Your task to perform on an android device: open sync settings in chrome Image 0: 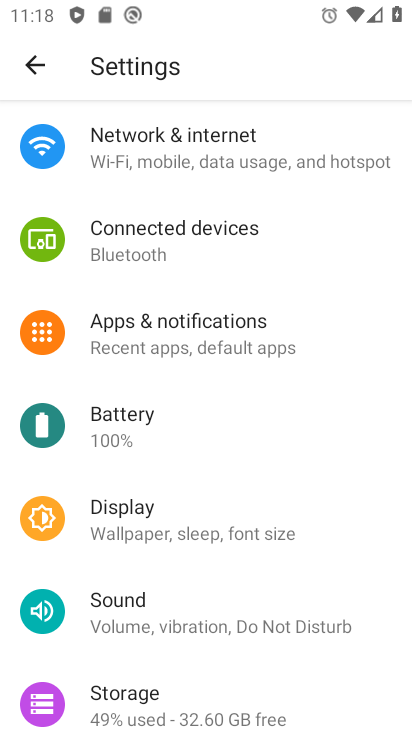
Step 0: press home button
Your task to perform on an android device: open sync settings in chrome Image 1: 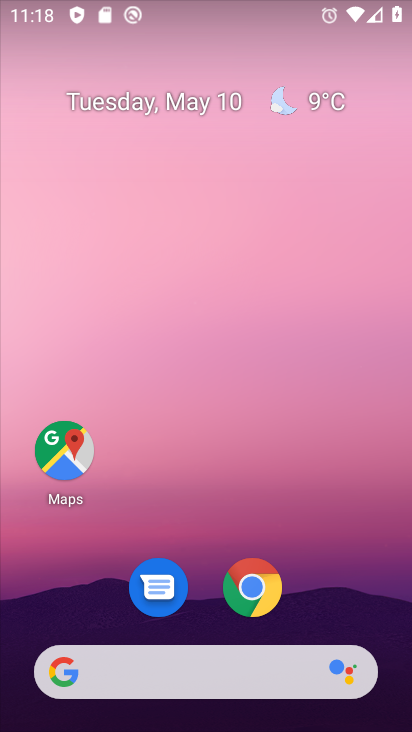
Step 1: click (254, 584)
Your task to perform on an android device: open sync settings in chrome Image 2: 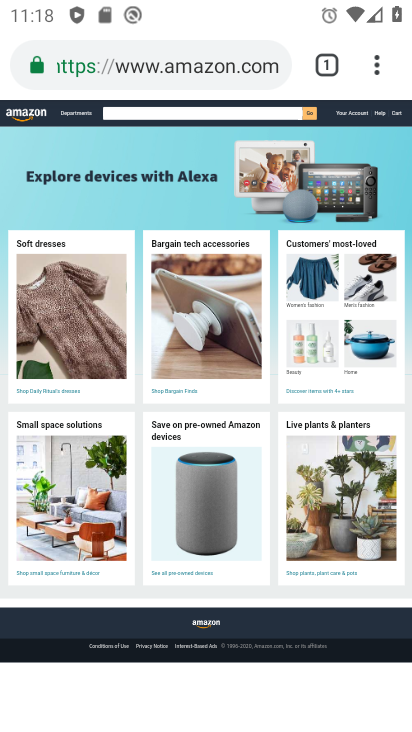
Step 2: drag from (375, 61) to (186, 637)
Your task to perform on an android device: open sync settings in chrome Image 3: 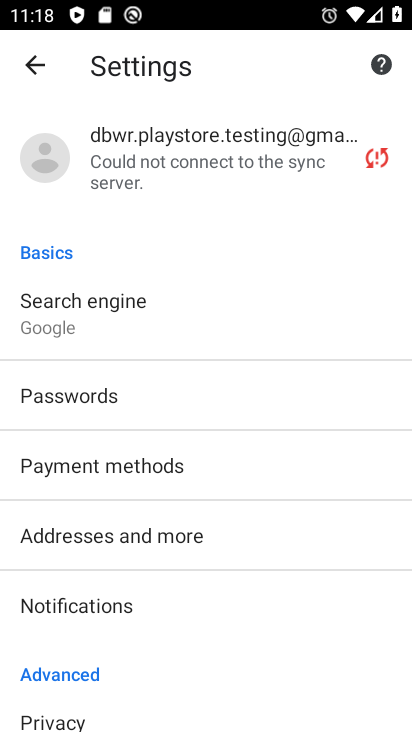
Step 3: drag from (187, 573) to (190, 301)
Your task to perform on an android device: open sync settings in chrome Image 4: 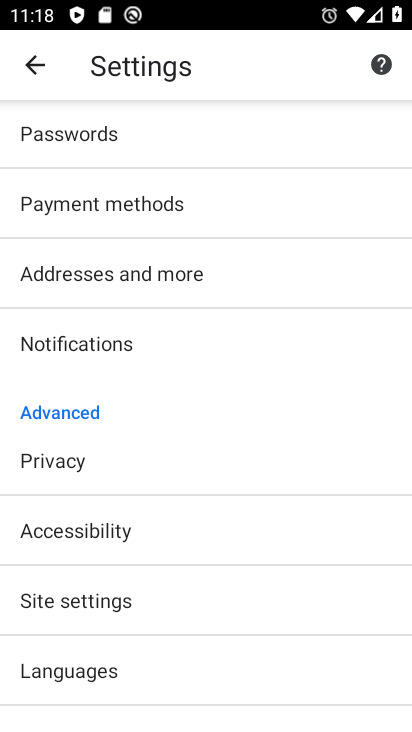
Step 4: drag from (174, 224) to (171, 643)
Your task to perform on an android device: open sync settings in chrome Image 5: 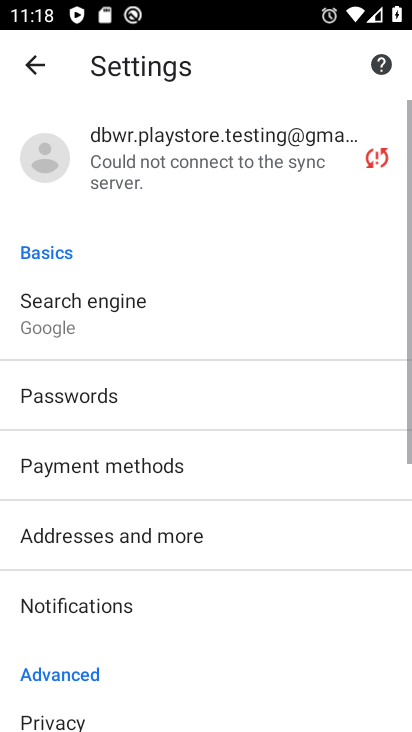
Step 5: click (143, 172)
Your task to perform on an android device: open sync settings in chrome Image 6: 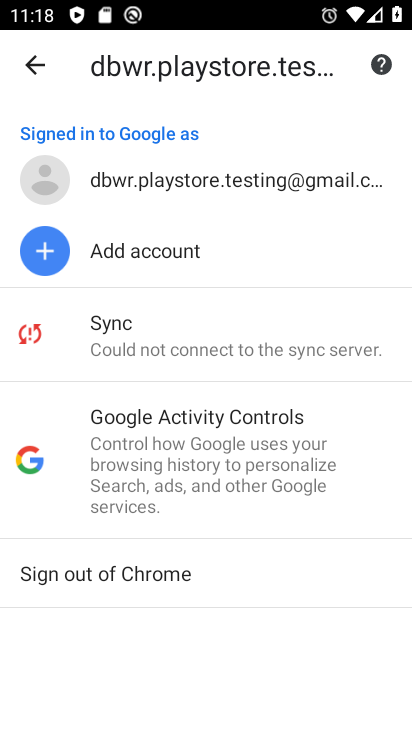
Step 6: click (133, 350)
Your task to perform on an android device: open sync settings in chrome Image 7: 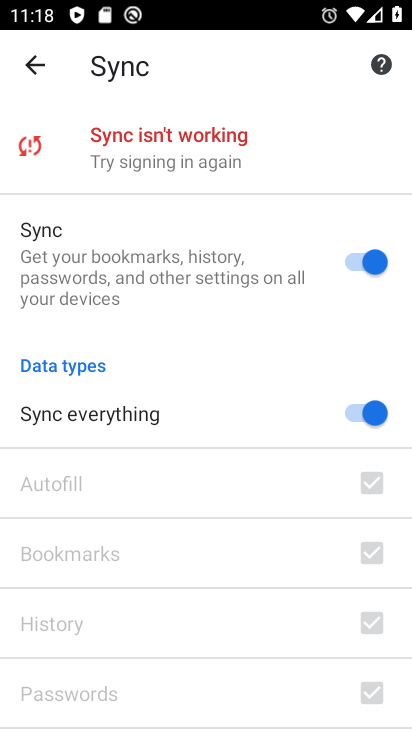
Step 7: task complete